Your task to perform on an android device: Open Youtube and go to "Your channel" Image 0: 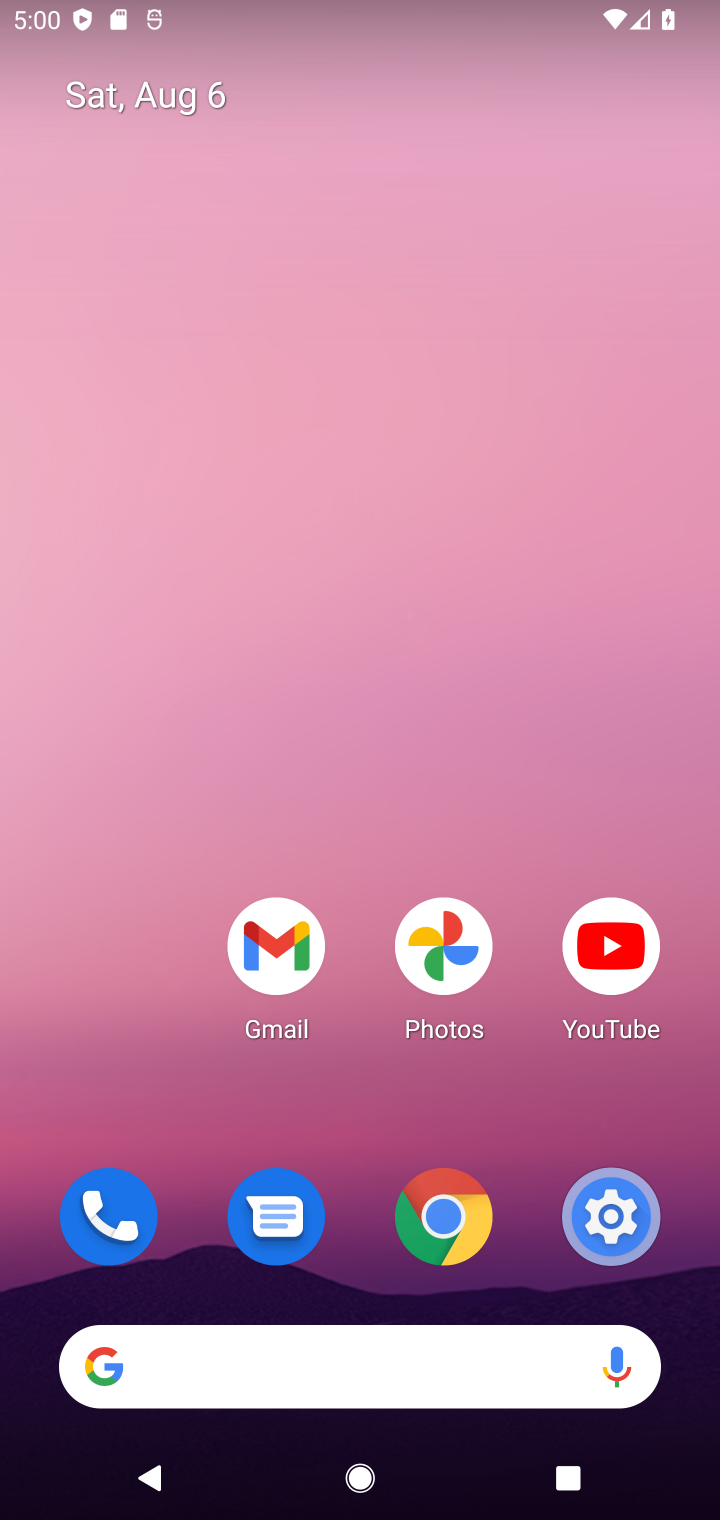
Step 0: drag from (316, 1088) to (201, 38)
Your task to perform on an android device: Open Youtube and go to "Your channel" Image 1: 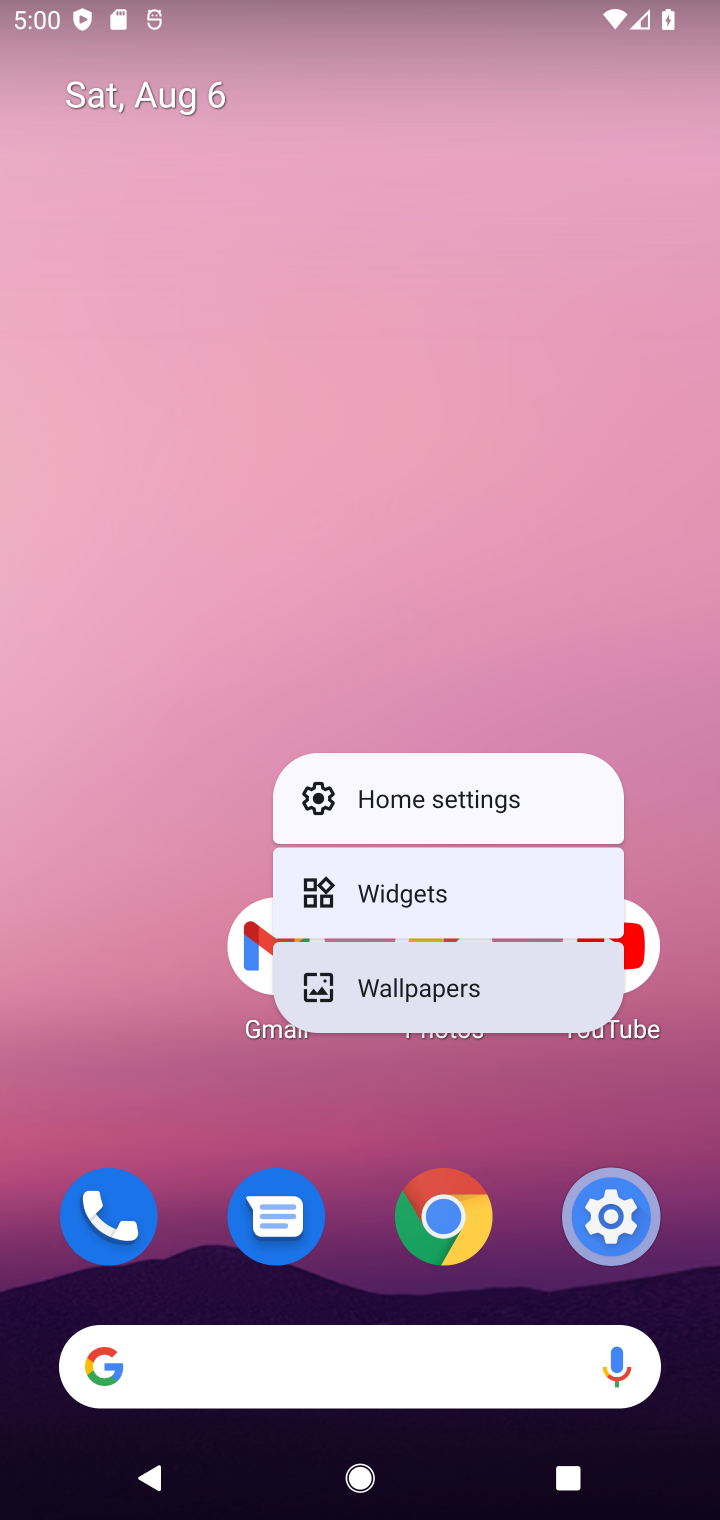
Step 1: click (228, 403)
Your task to perform on an android device: Open Youtube and go to "Your channel" Image 2: 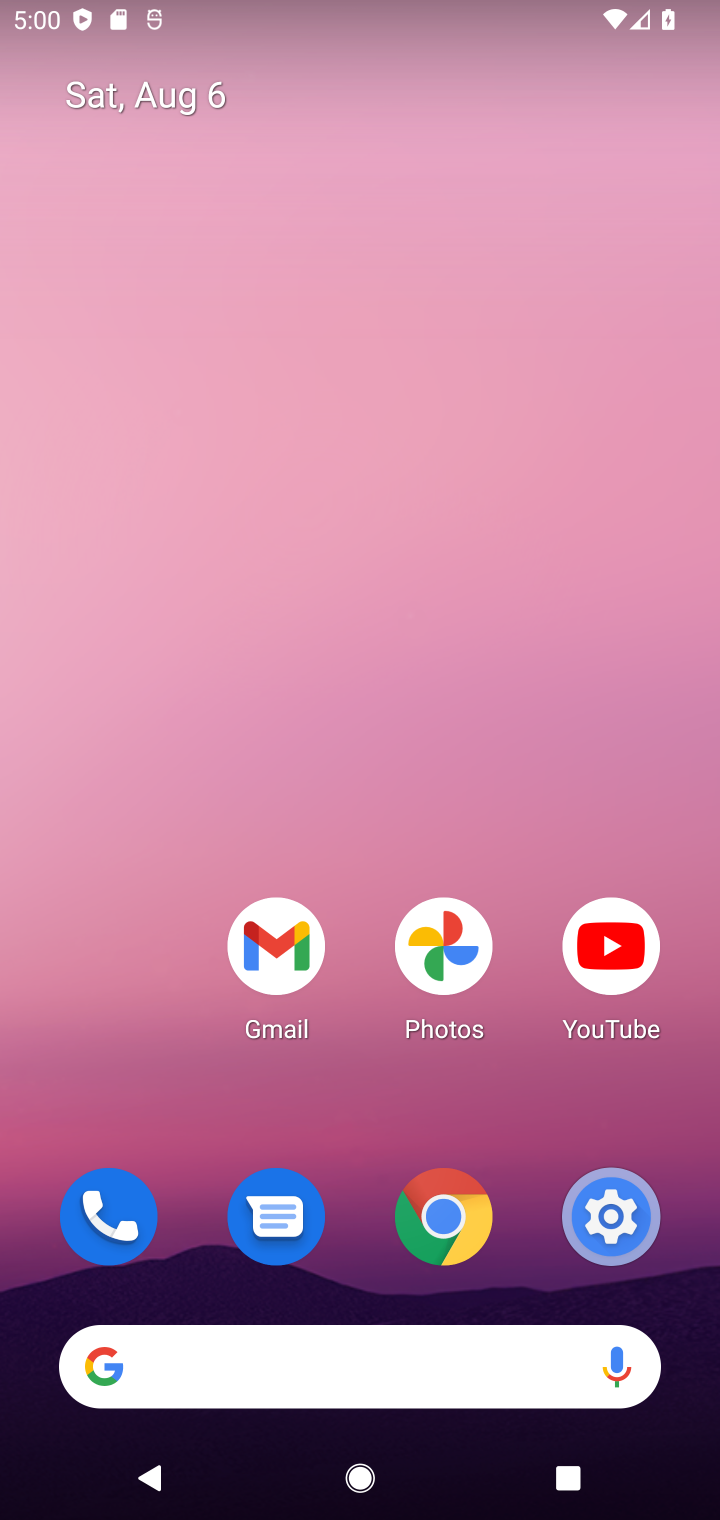
Step 2: drag from (103, 1036) to (354, 133)
Your task to perform on an android device: Open Youtube and go to "Your channel" Image 3: 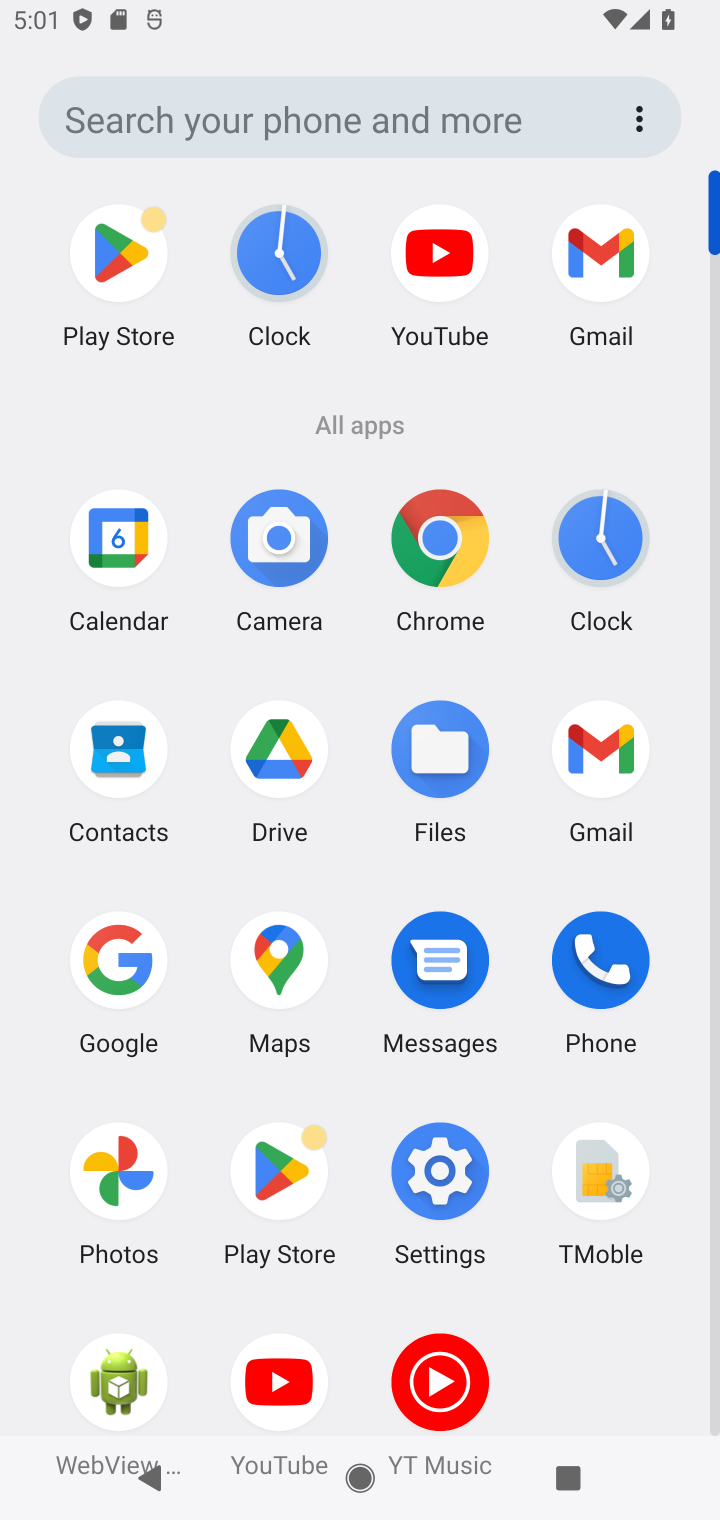
Step 3: click (285, 1363)
Your task to perform on an android device: Open Youtube and go to "Your channel" Image 4: 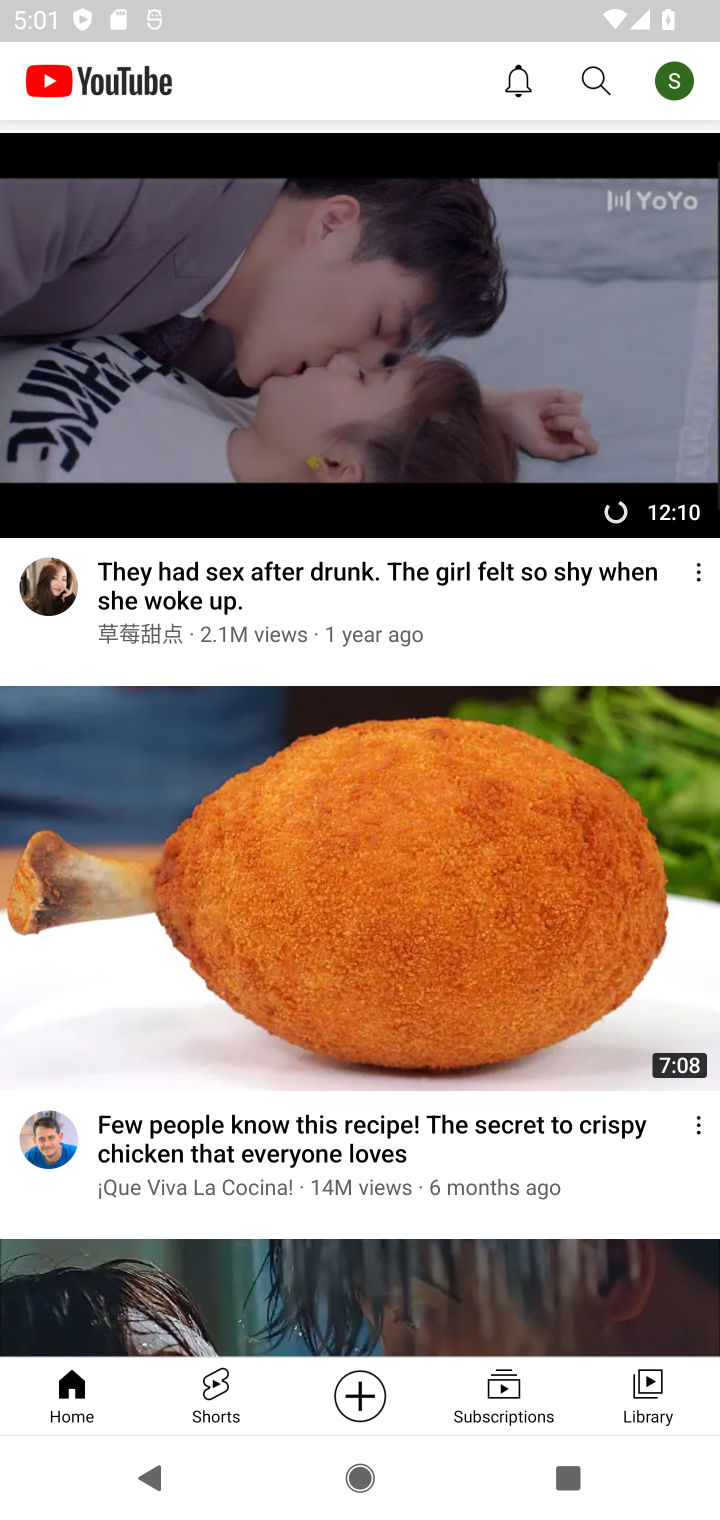
Step 4: click (682, 70)
Your task to perform on an android device: Open Youtube and go to "Your channel" Image 5: 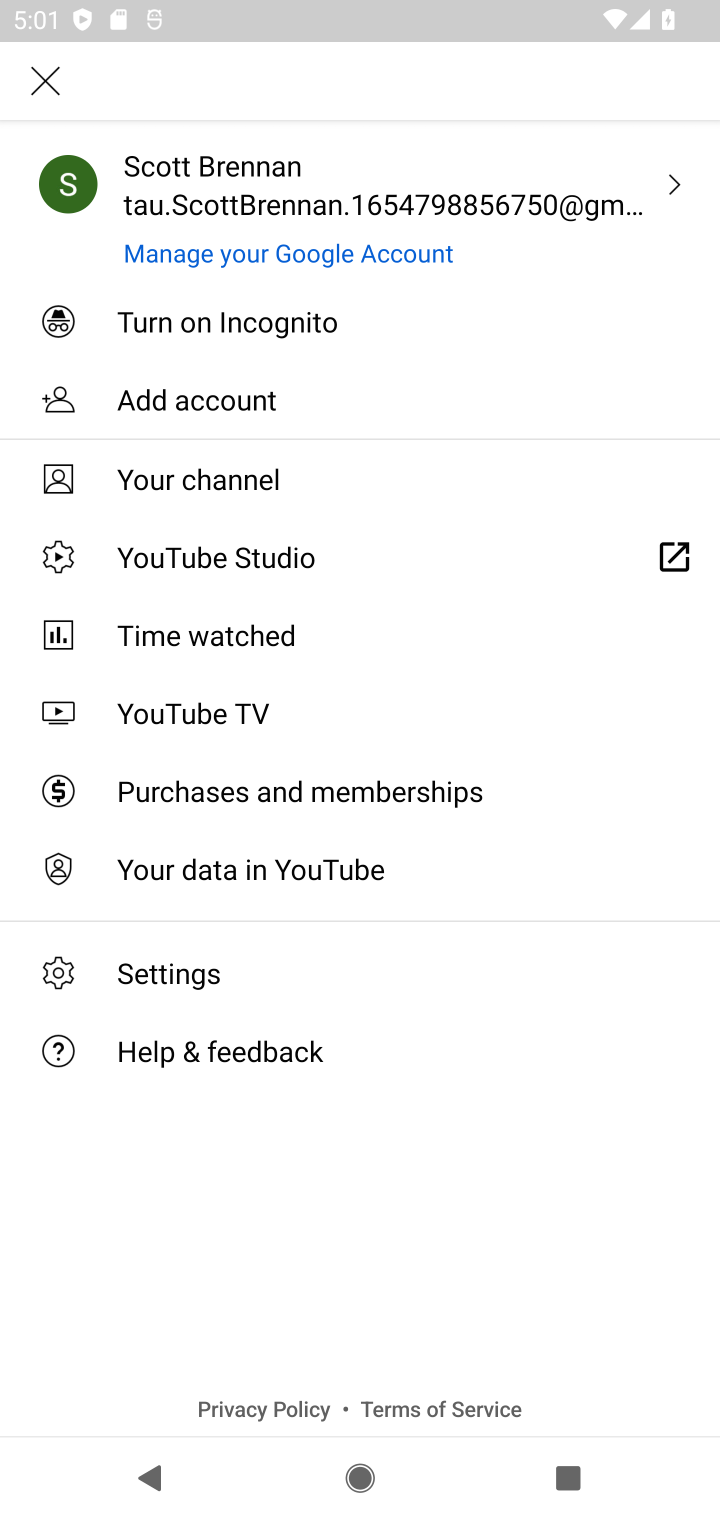
Step 5: click (241, 489)
Your task to perform on an android device: Open Youtube and go to "Your channel" Image 6: 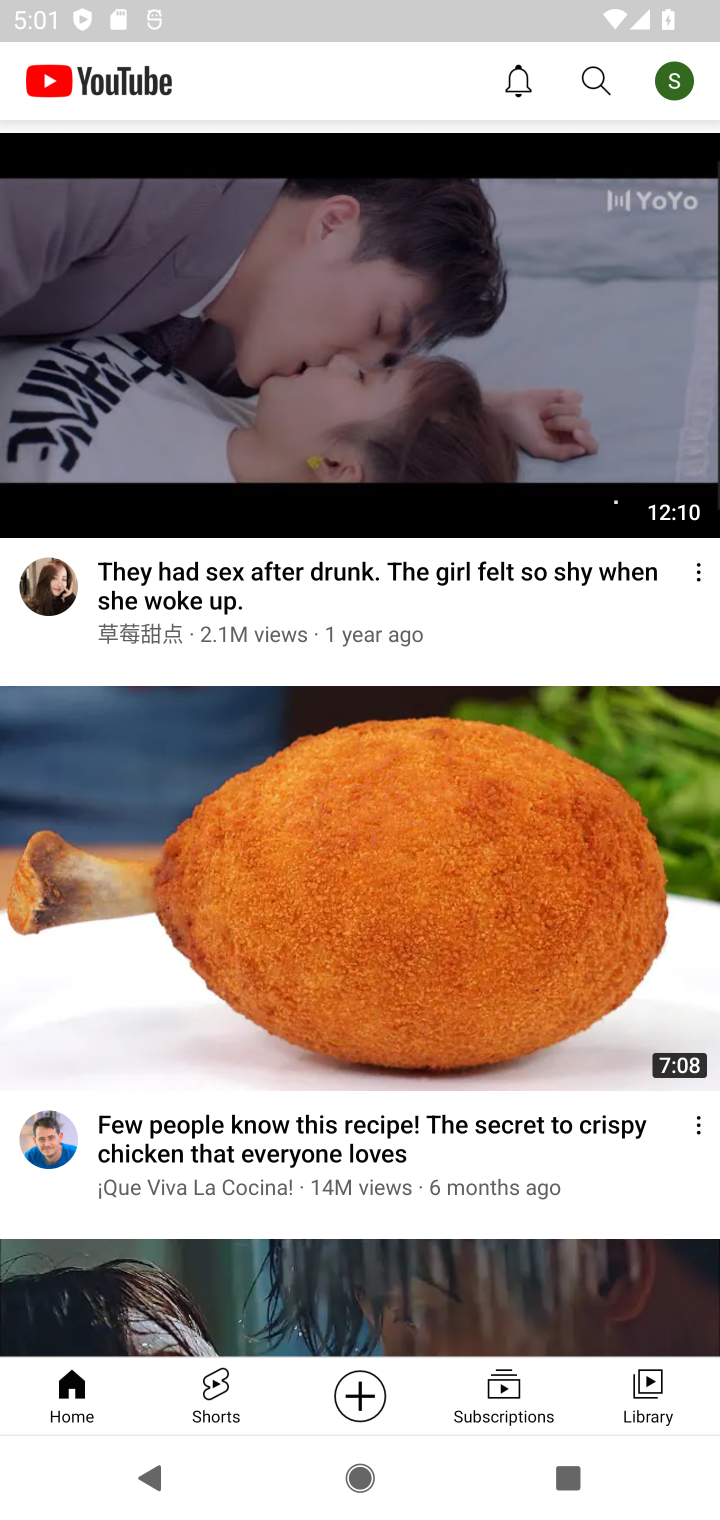
Step 6: click (667, 80)
Your task to perform on an android device: Open Youtube and go to "Your channel" Image 7: 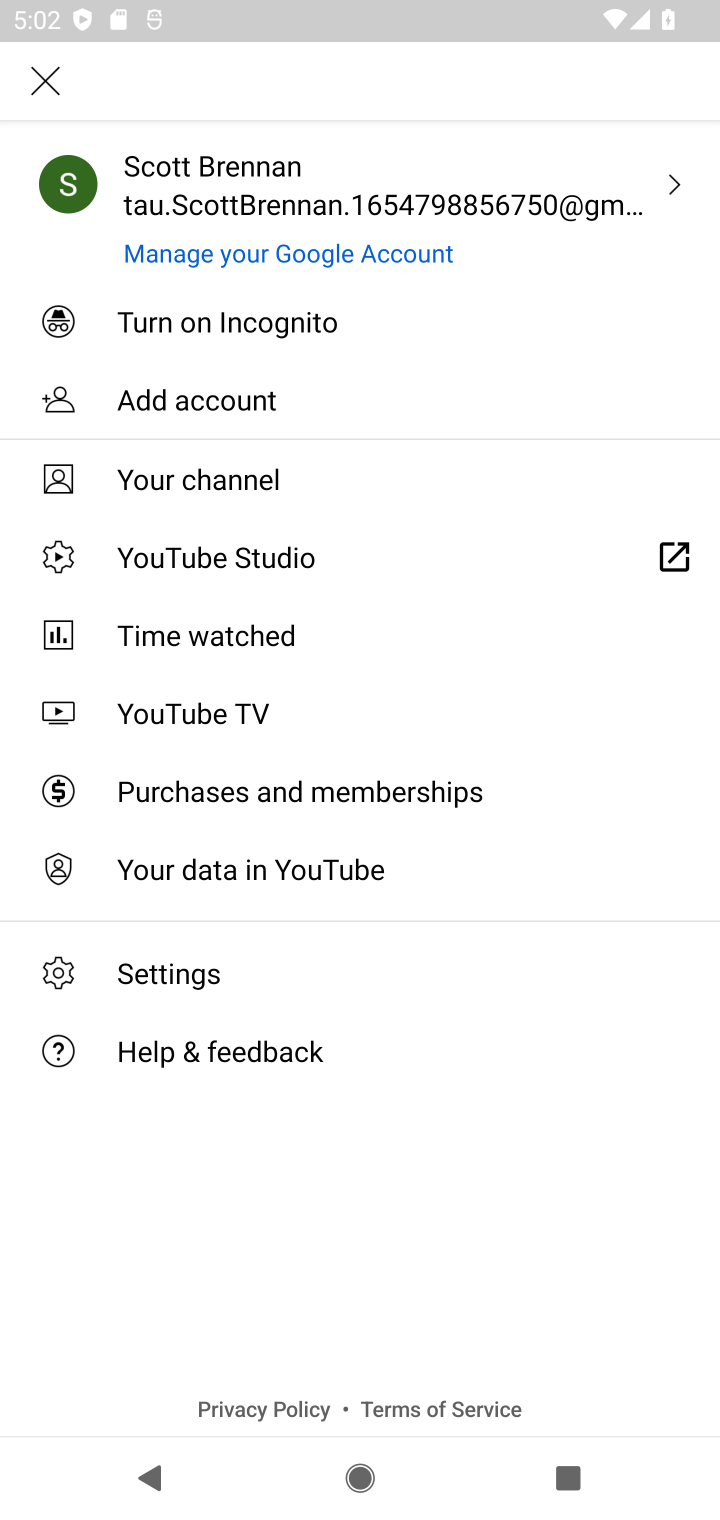
Step 7: click (175, 467)
Your task to perform on an android device: Open Youtube and go to "Your channel" Image 8: 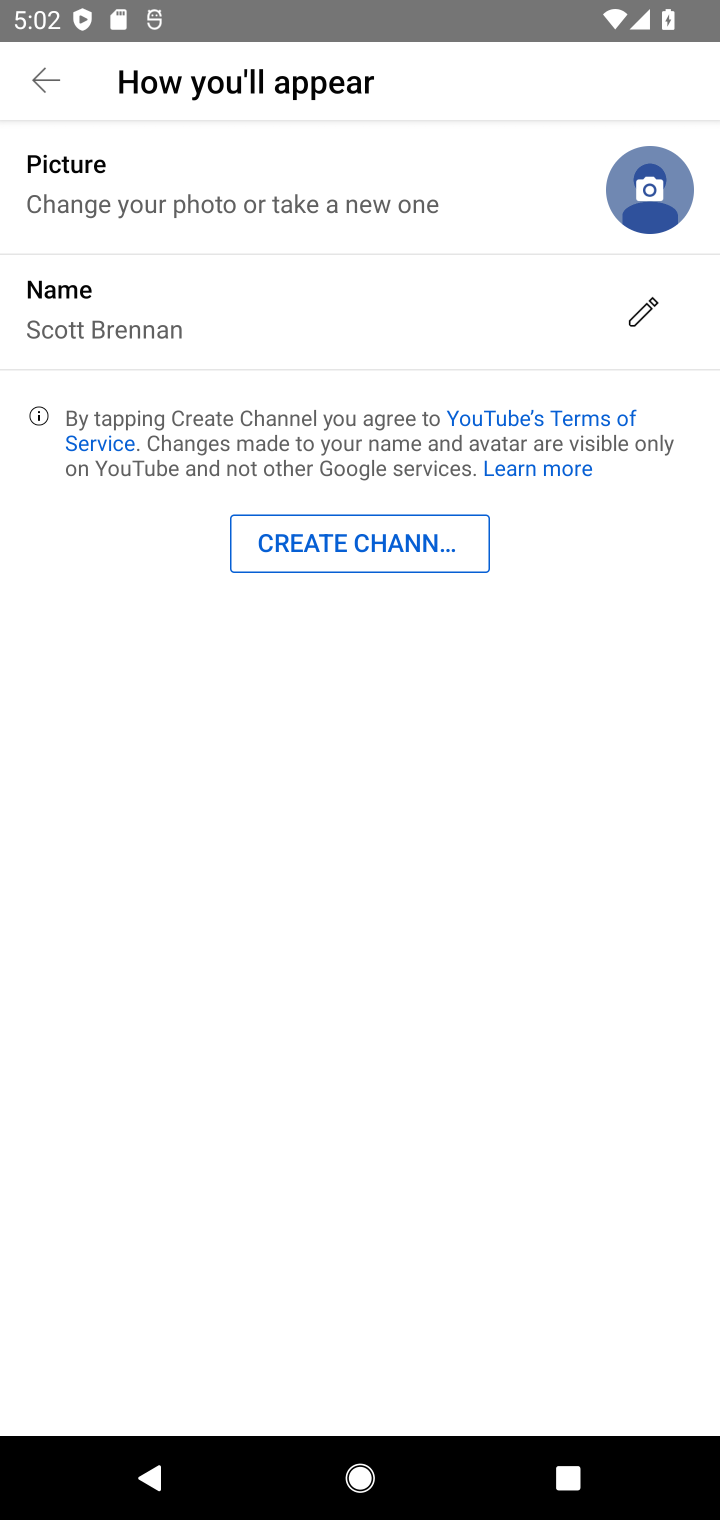
Step 8: task complete